Your task to perform on an android device: Open Android settings Image 0: 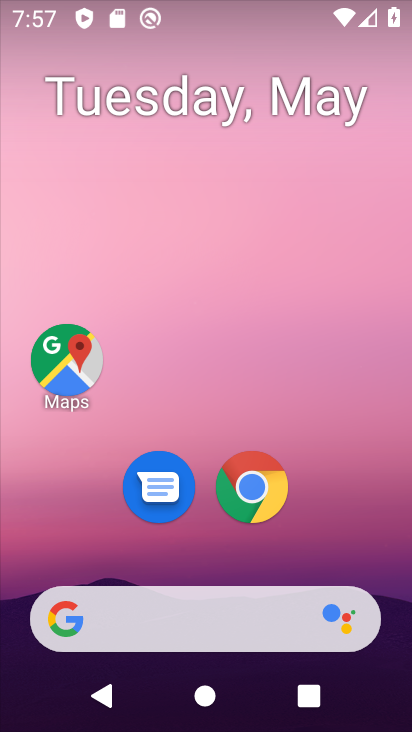
Step 0: drag from (318, 474) to (362, 127)
Your task to perform on an android device: Open Android settings Image 1: 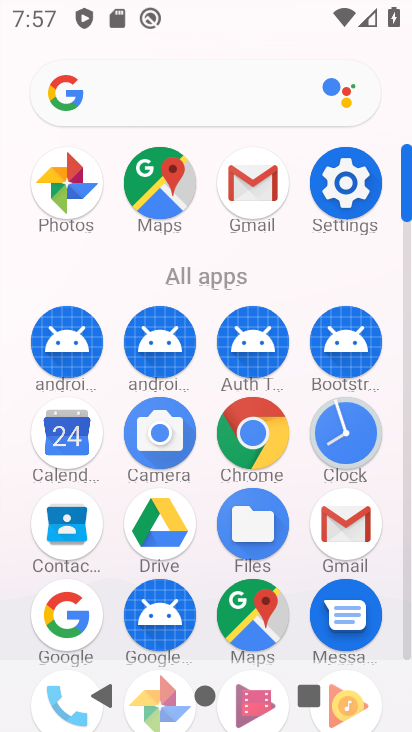
Step 1: click (344, 182)
Your task to perform on an android device: Open Android settings Image 2: 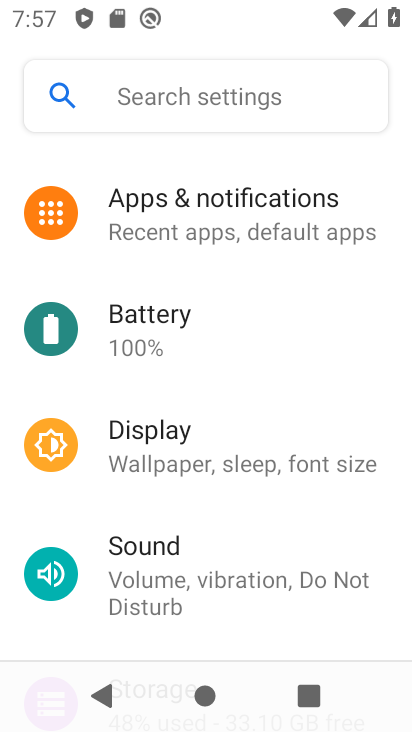
Step 2: drag from (315, 634) to (377, 147)
Your task to perform on an android device: Open Android settings Image 3: 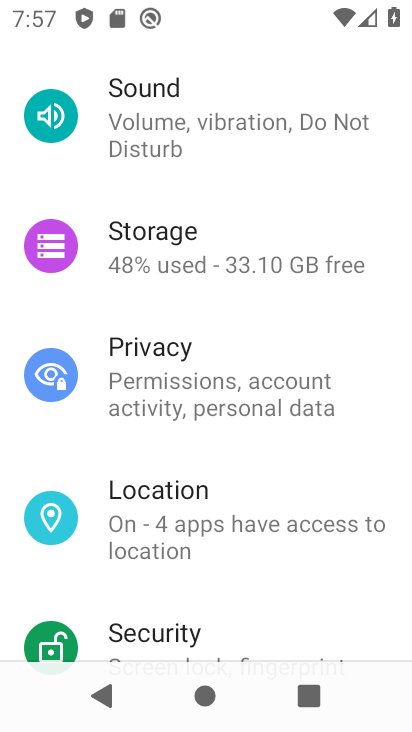
Step 3: drag from (298, 581) to (346, 96)
Your task to perform on an android device: Open Android settings Image 4: 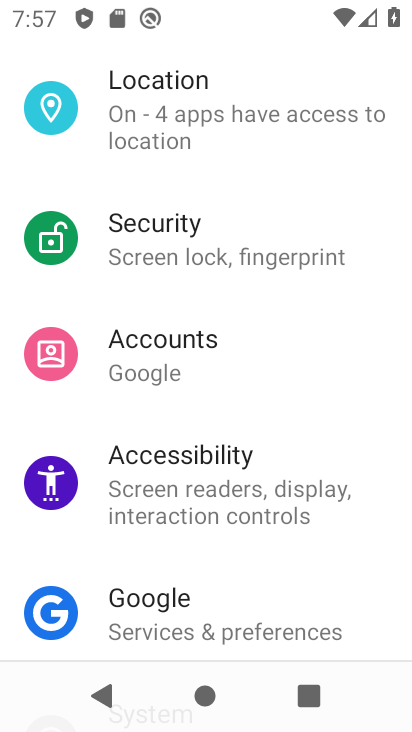
Step 4: drag from (357, 620) to (380, 119)
Your task to perform on an android device: Open Android settings Image 5: 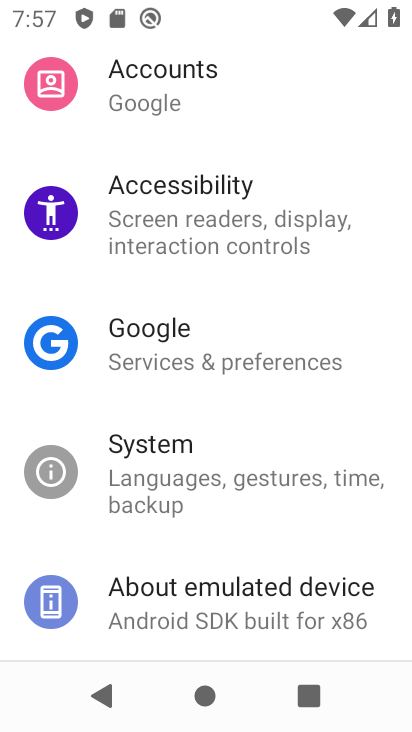
Step 5: click (200, 618)
Your task to perform on an android device: Open Android settings Image 6: 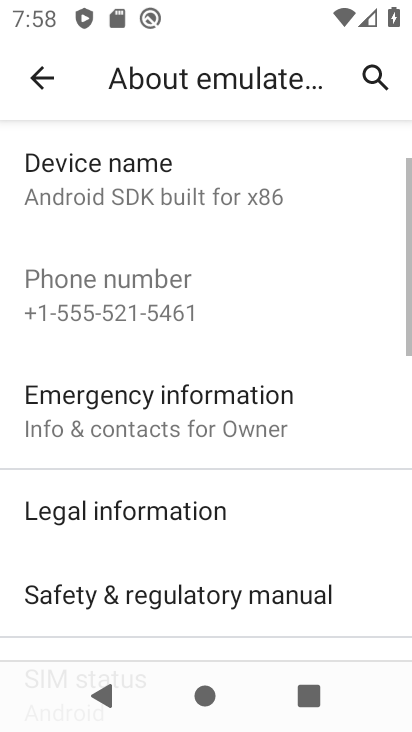
Step 6: drag from (335, 577) to (339, 218)
Your task to perform on an android device: Open Android settings Image 7: 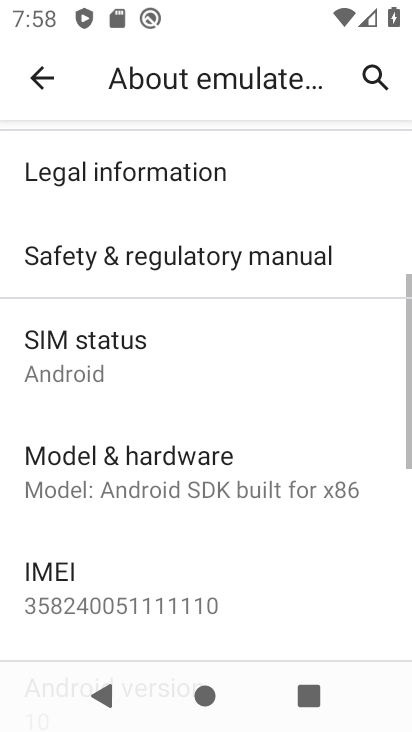
Step 7: drag from (289, 630) to (305, 187)
Your task to perform on an android device: Open Android settings Image 8: 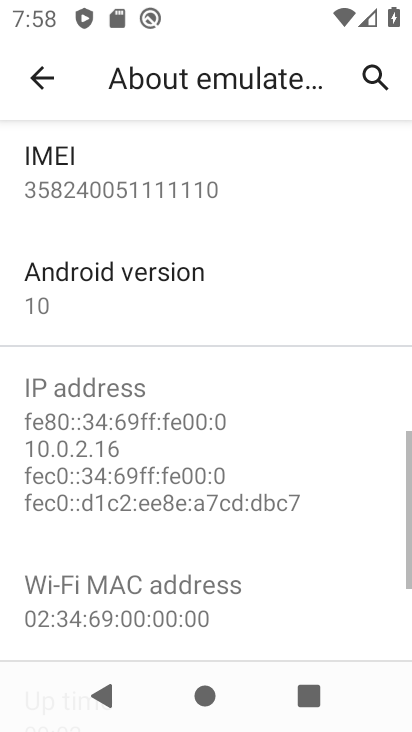
Step 8: click (66, 280)
Your task to perform on an android device: Open Android settings Image 9: 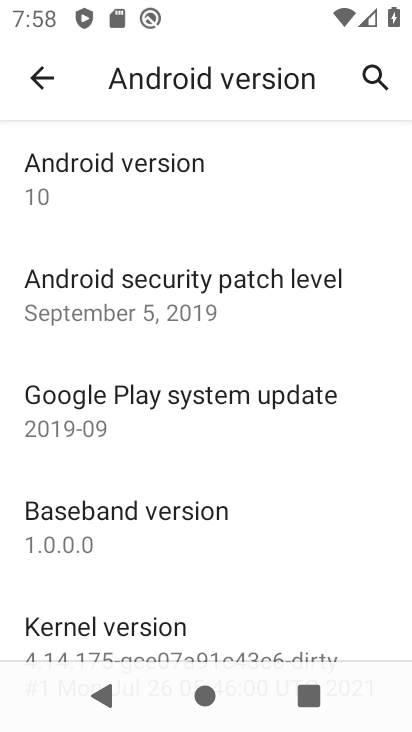
Step 9: drag from (323, 574) to (300, 485)
Your task to perform on an android device: Open Android settings Image 10: 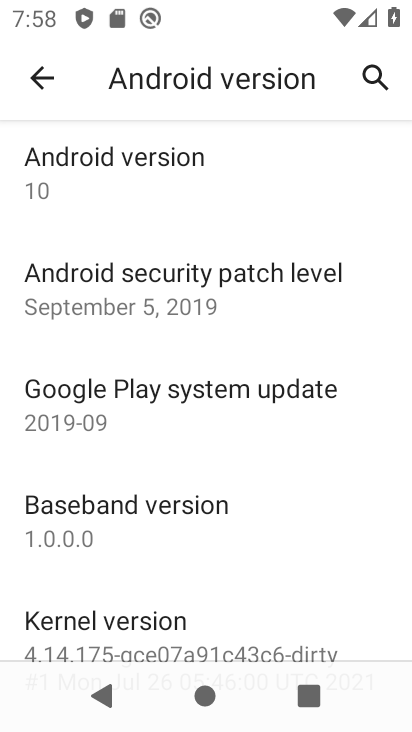
Step 10: click (134, 175)
Your task to perform on an android device: Open Android settings Image 11: 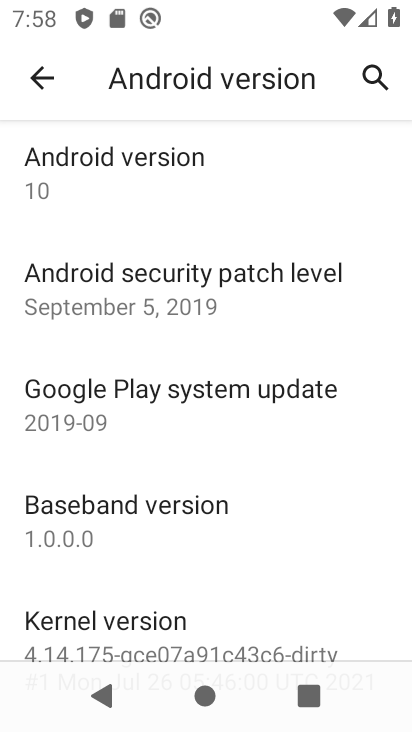
Step 11: task complete